Your task to perform on an android device: Go to Wikipedia Image 0: 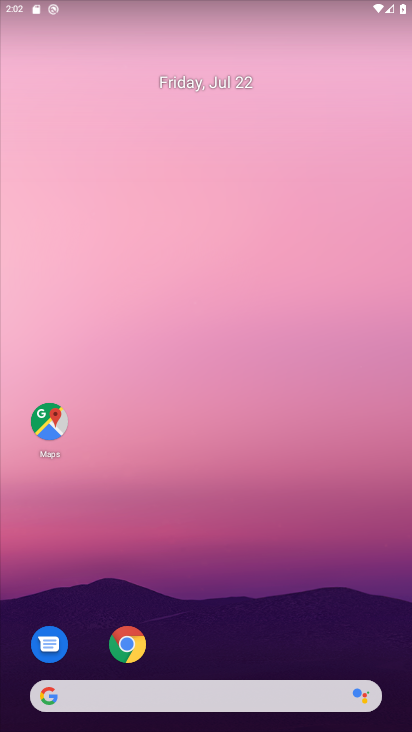
Step 0: drag from (189, 627) to (189, 177)
Your task to perform on an android device: Go to Wikipedia Image 1: 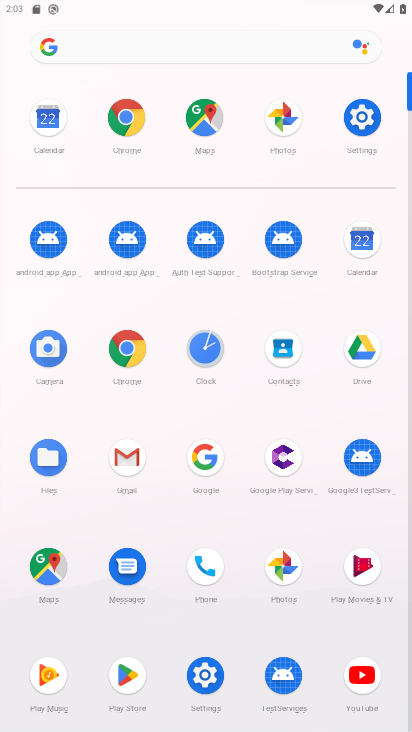
Step 1: click (127, 112)
Your task to perform on an android device: Go to Wikipedia Image 2: 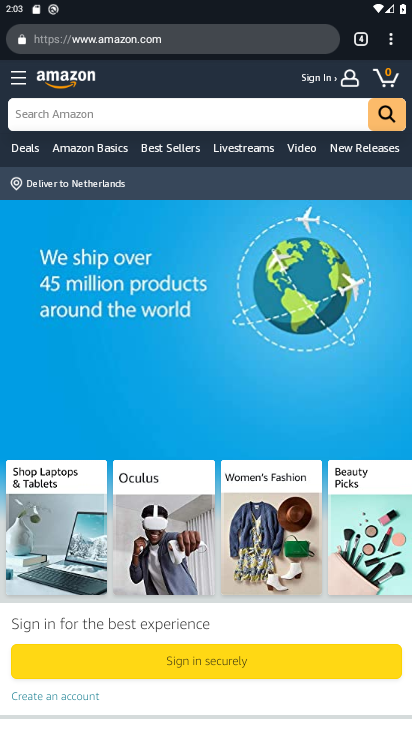
Step 2: click (394, 48)
Your task to perform on an android device: Go to Wikipedia Image 3: 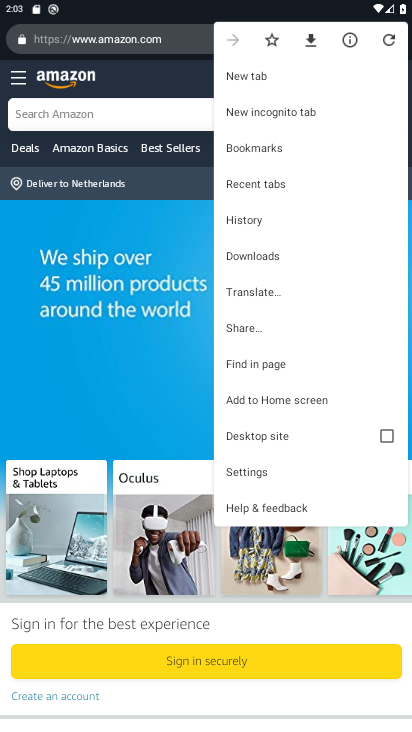
Step 3: click (261, 77)
Your task to perform on an android device: Go to Wikipedia Image 4: 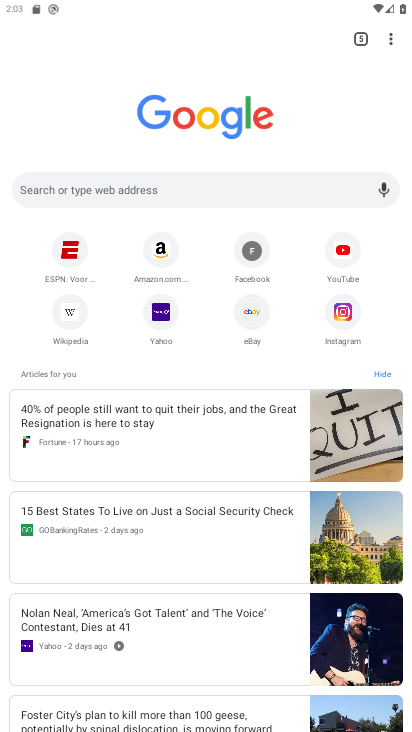
Step 4: click (68, 309)
Your task to perform on an android device: Go to Wikipedia Image 5: 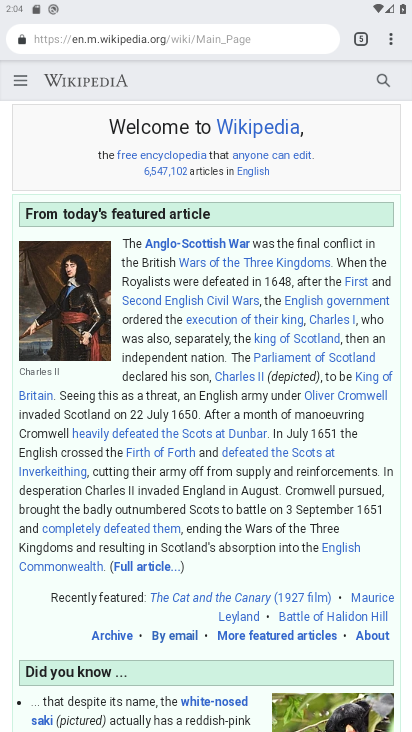
Step 5: task complete